Your task to perform on an android device: Open maps Image 0: 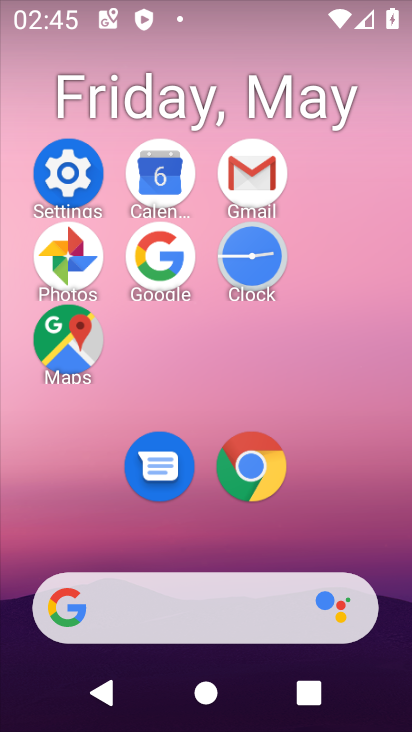
Step 0: click (73, 341)
Your task to perform on an android device: Open maps Image 1: 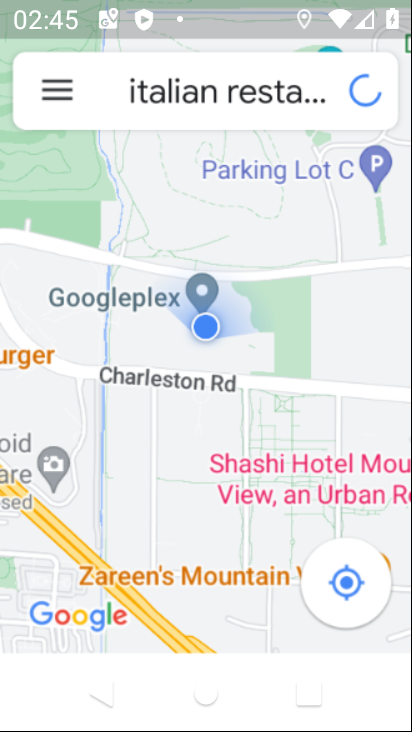
Step 1: task complete